Your task to perform on an android device: turn off priority inbox in the gmail app Image 0: 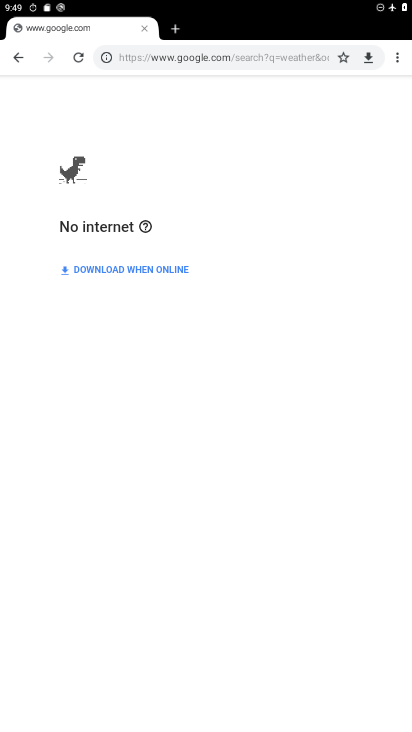
Step 0: press home button
Your task to perform on an android device: turn off priority inbox in the gmail app Image 1: 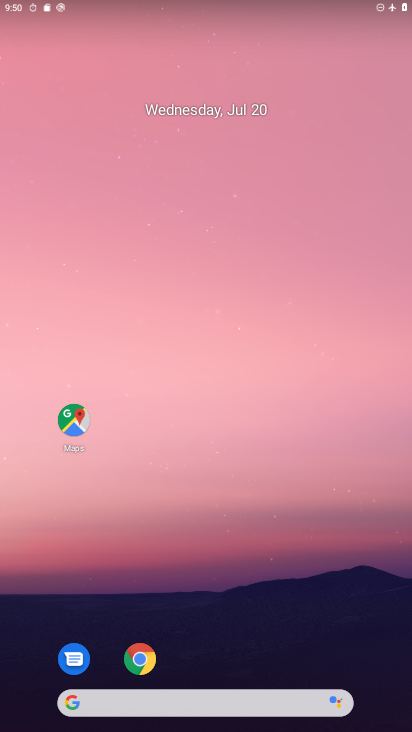
Step 1: drag from (216, 630) to (179, 0)
Your task to perform on an android device: turn off priority inbox in the gmail app Image 2: 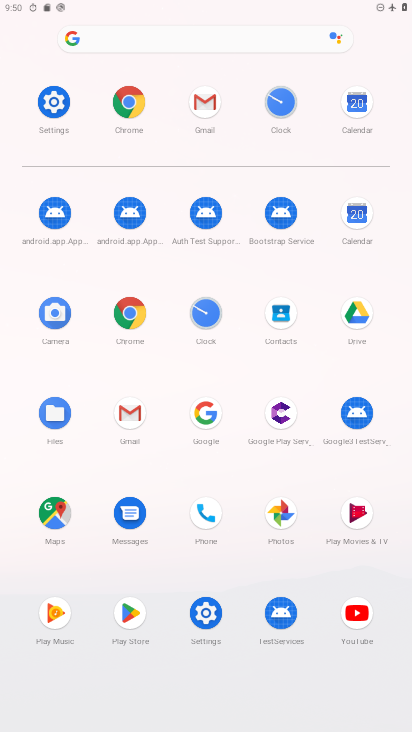
Step 2: click (200, 99)
Your task to perform on an android device: turn off priority inbox in the gmail app Image 3: 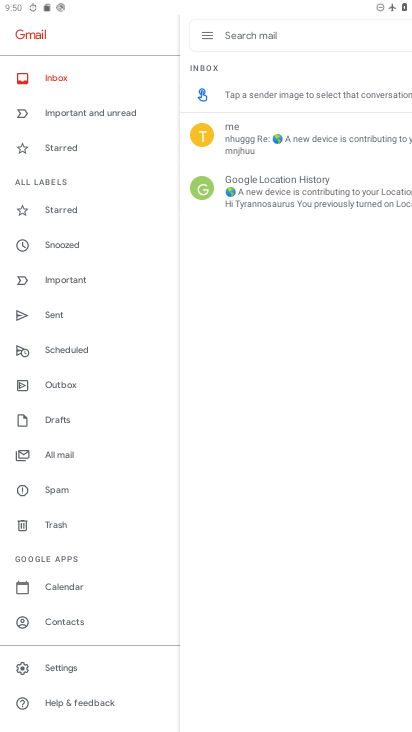
Step 3: click (67, 676)
Your task to perform on an android device: turn off priority inbox in the gmail app Image 4: 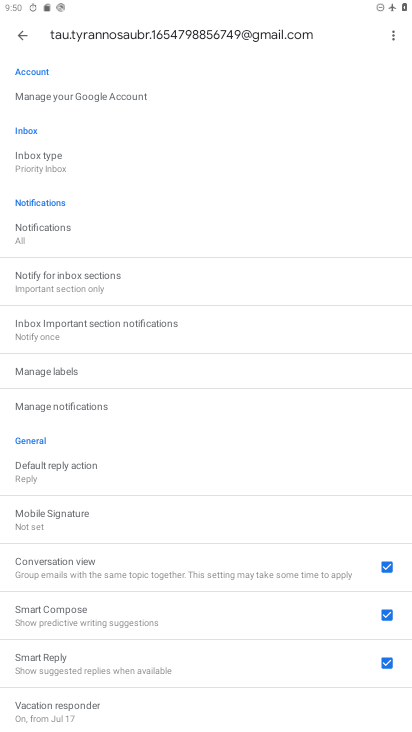
Step 4: drag from (130, 578) to (210, 90)
Your task to perform on an android device: turn off priority inbox in the gmail app Image 5: 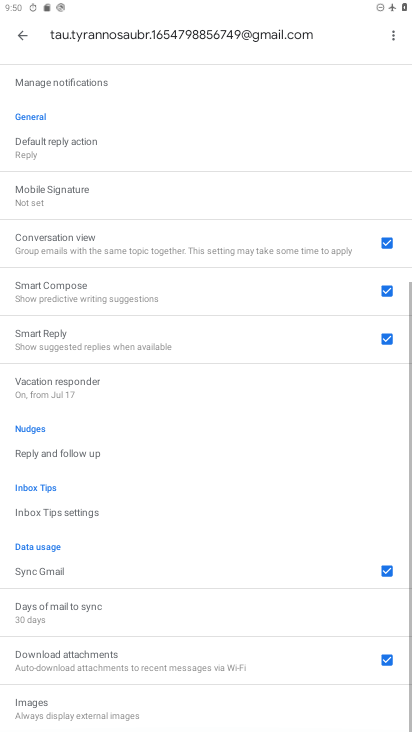
Step 5: drag from (210, 89) to (105, 706)
Your task to perform on an android device: turn off priority inbox in the gmail app Image 6: 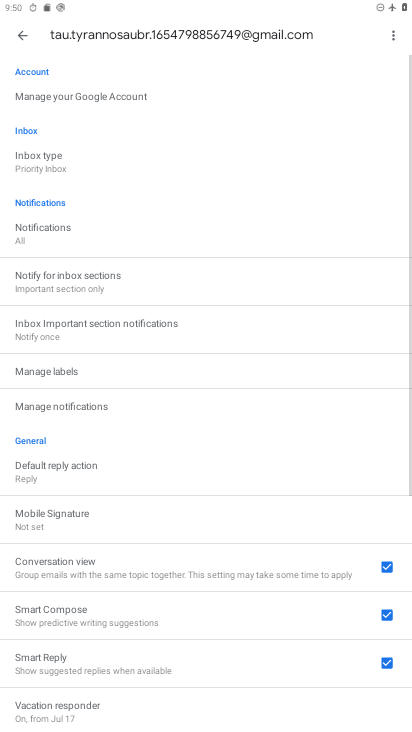
Step 6: click (62, 156)
Your task to perform on an android device: turn off priority inbox in the gmail app Image 7: 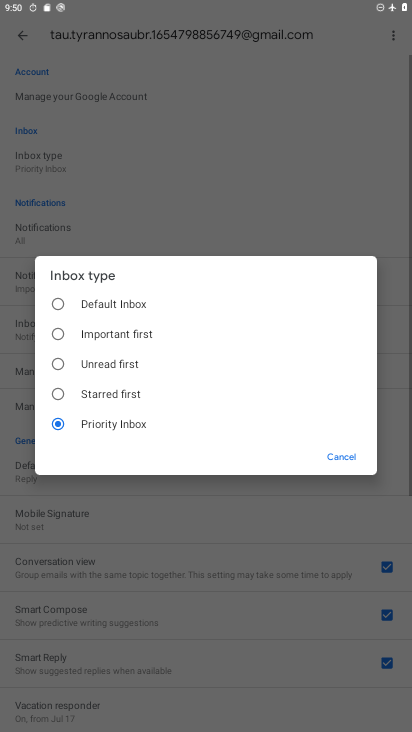
Step 7: task complete